Your task to perform on an android device: turn vacation reply on in the gmail app Image 0: 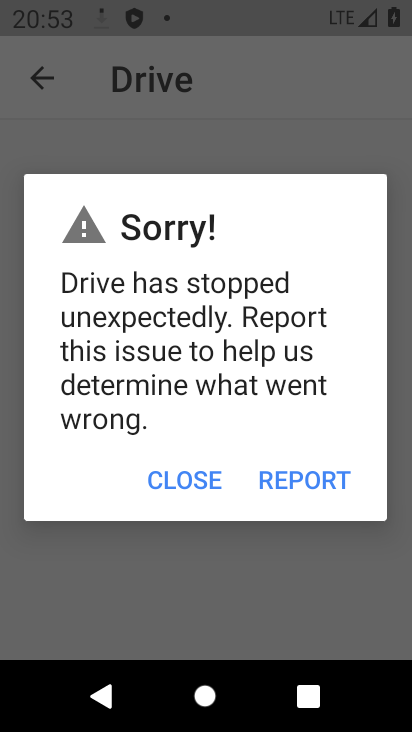
Step 0: press home button
Your task to perform on an android device: turn vacation reply on in the gmail app Image 1: 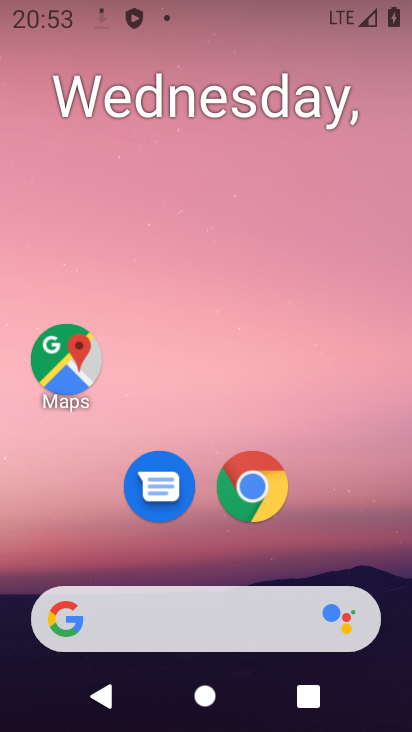
Step 1: drag from (204, 549) to (17, 144)
Your task to perform on an android device: turn vacation reply on in the gmail app Image 2: 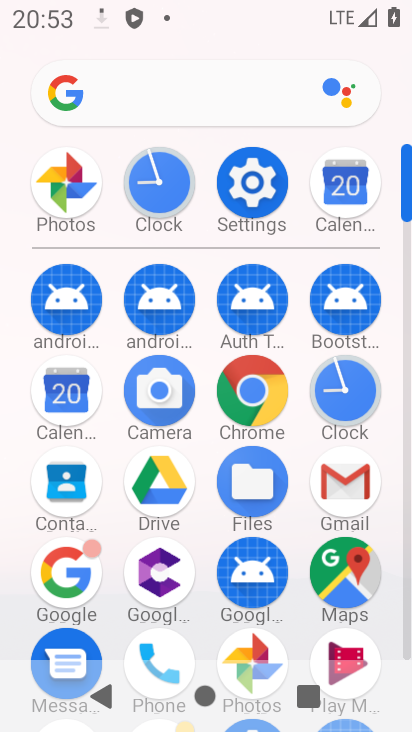
Step 2: click (342, 496)
Your task to perform on an android device: turn vacation reply on in the gmail app Image 3: 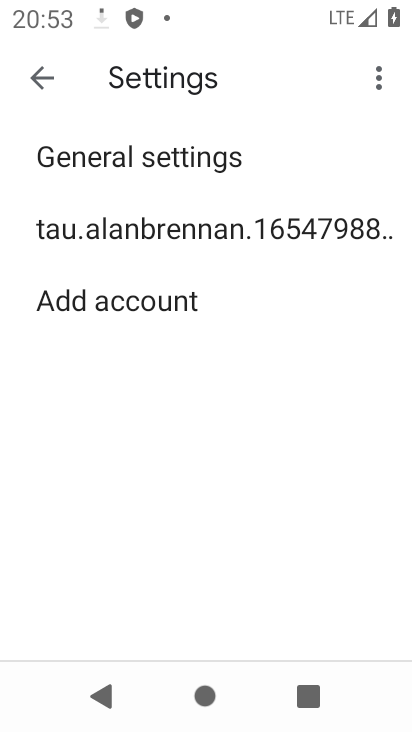
Step 3: click (141, 221)
Your task to perform on an android device: turn vacation reply on in the gmail app Image 4: 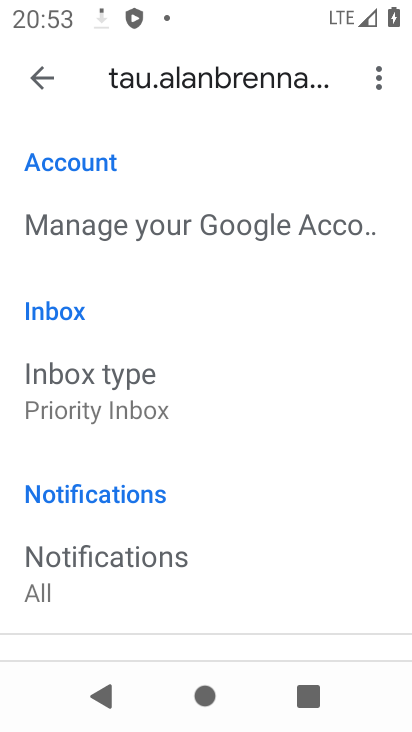
Step 4: drag from (95, 572) to (186, 50)
Your task to perform on an android device: turn vacation reply on in the gmail app Image 5: 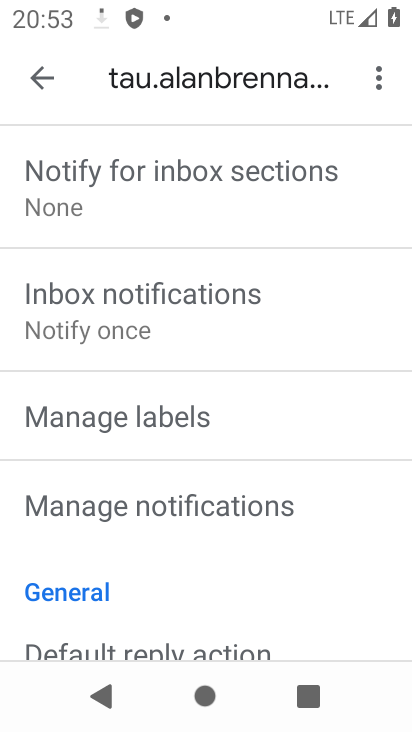
Step 5: drag from (231, 523) to (287, 81)
Your task to perform on an android device: turn vacation reply on in the gmail app Image 6: 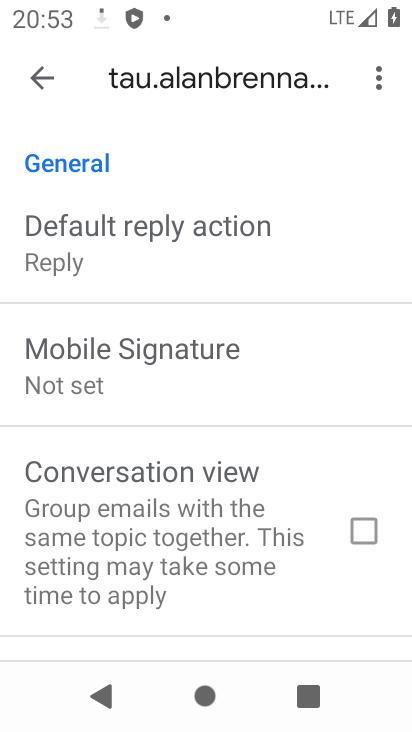
Step 6: drag from (205, 544) to (273, 118)
Your task to perform on an android device: turn vacation reply on in the gmail app Image 7: 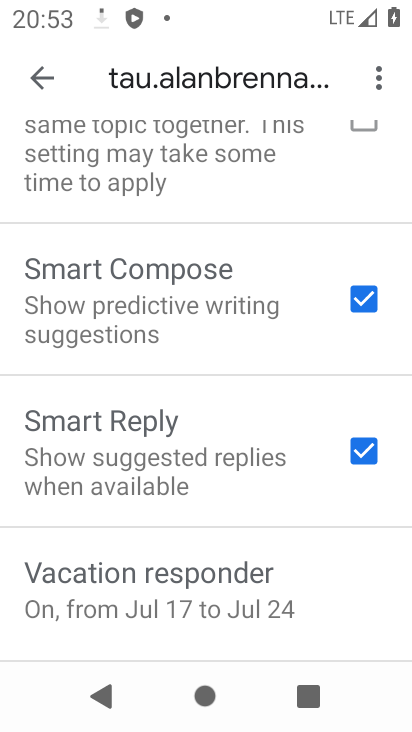
Step 7: click (118, 598)
Your task to perform on an android device: turn vacation reply on in the gmail app Image 8: 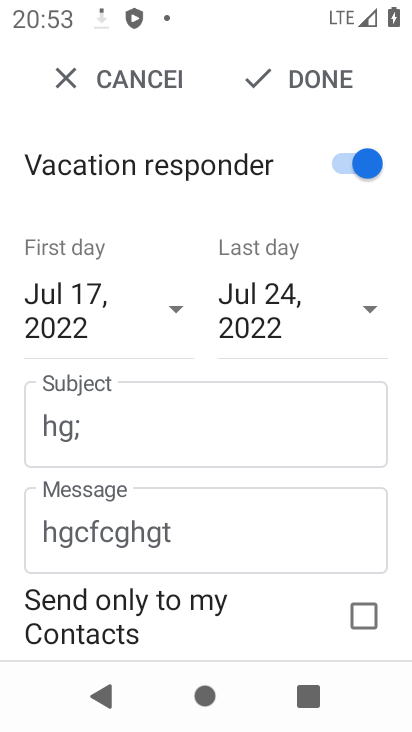
Step 8: task complete